Your task to perform on an android device: turn off wifi Image 0: 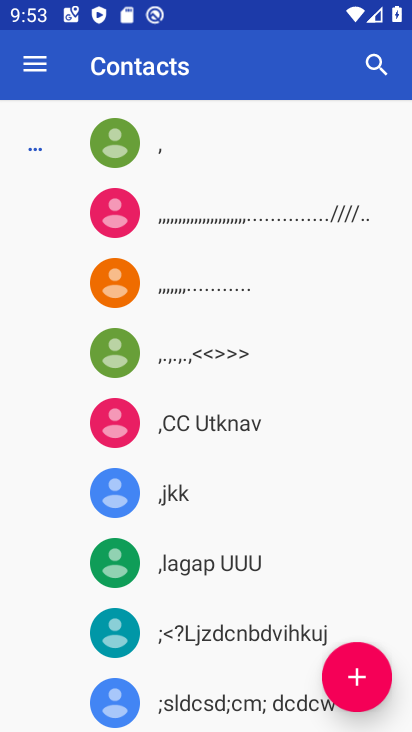
Step 0: press home button
Your task to perform on an android device: turn off wifi Image 1: 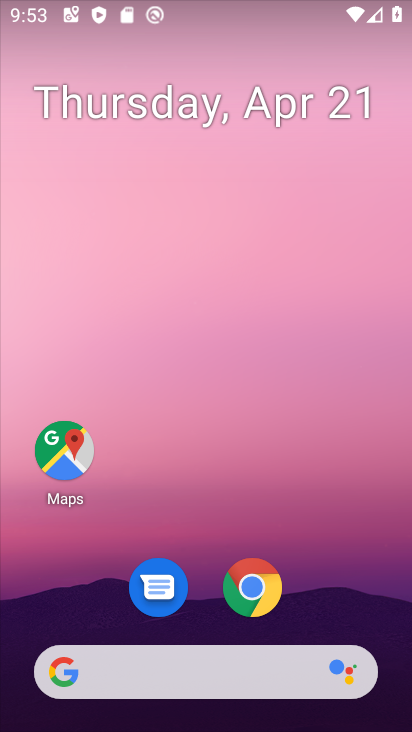
Step 1: drag from (355, 580) to (369, 61)
Your task to perform on an android device: turn off wifi Image 2: 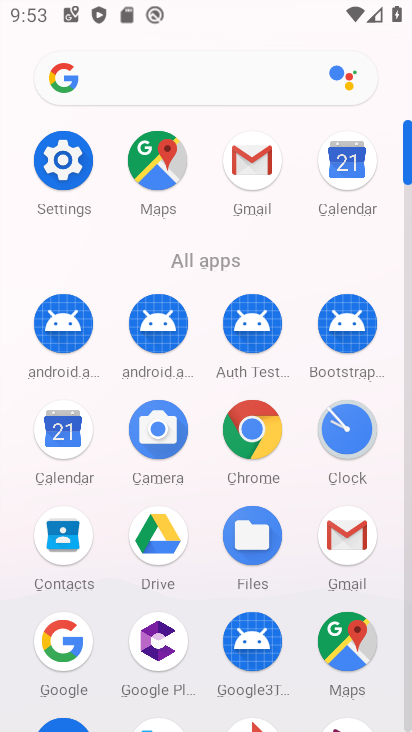
Step 2: click (75, 164)
Your task to perform on an android device: turn off wifi Image 3: 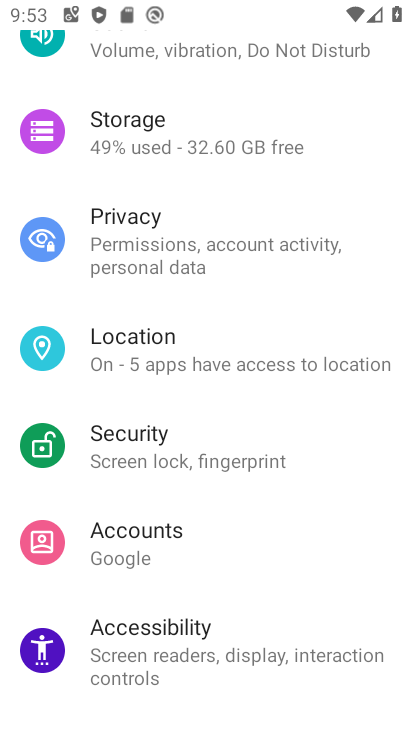
Step 3: drag from (335, 438) to (353, 552)
Your task to perform on an android device: turn off wifi Image 4: 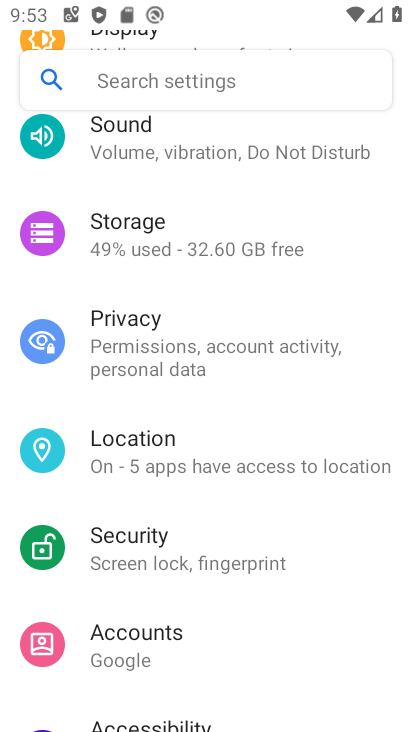
Step 4: drag from (375, 402) to (364, 535)
Your task to perform on an android device: turn off wifi Image 5: 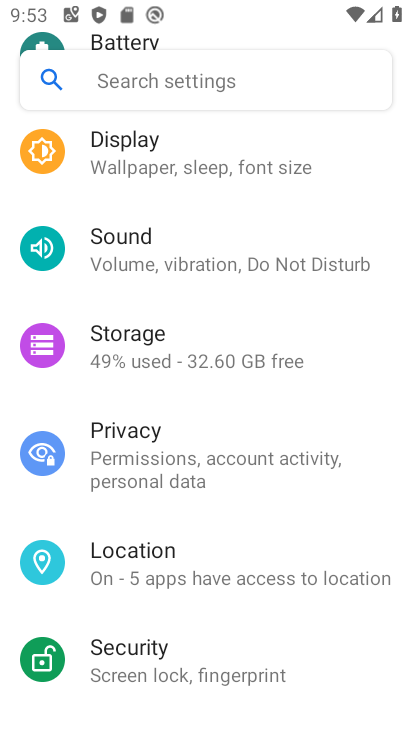
Step 5: drag from (388, 344) to (378, 482)
Your task to perform on an android device: turn off wifi Image 6: 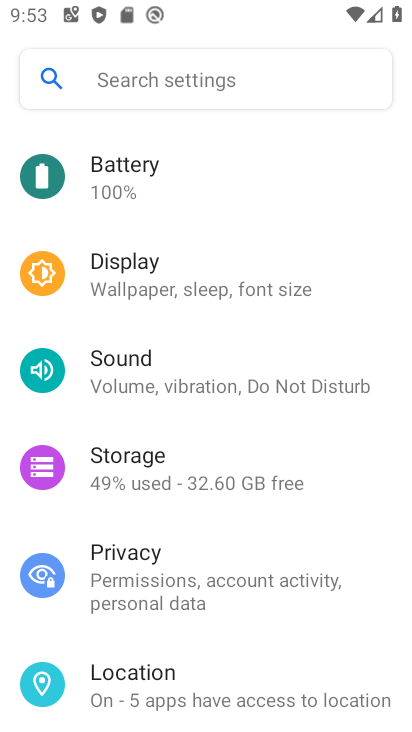
Step 6: drag from (391, 383) to (382, 467)
Your task to perform on an android device: turn off wifi Image 7: 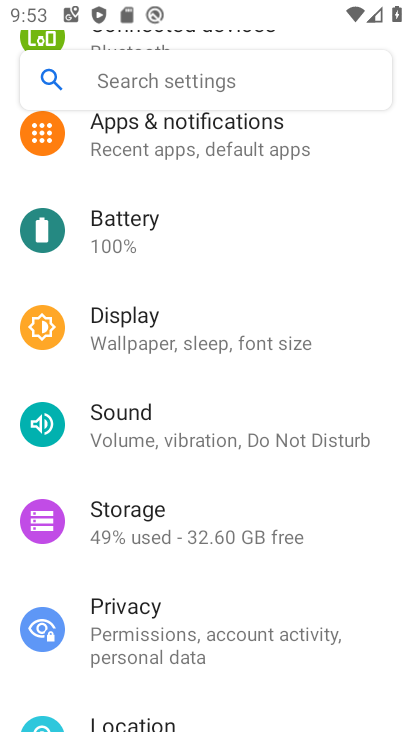
Step 7: drag from (362, 309) to (361, 492)
Your task to perform on an android device: turn off wifi Image 8: 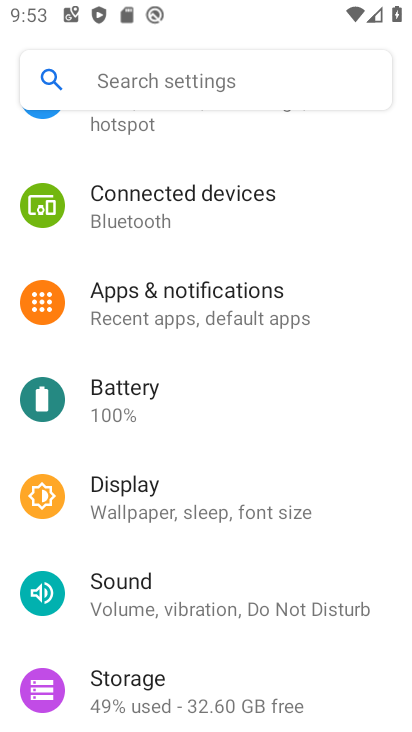
Step 8: drag from (362, 340) to (356, 466)
Your task to perform on an android device: turn off wifi Image 9: 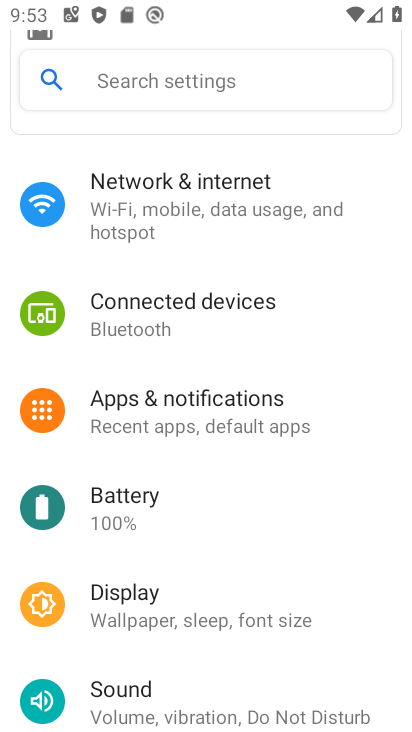
Step 9: drag from (354, 334) to (347, 455)
Your task to perform on an android device: turn off wifi Image 10: 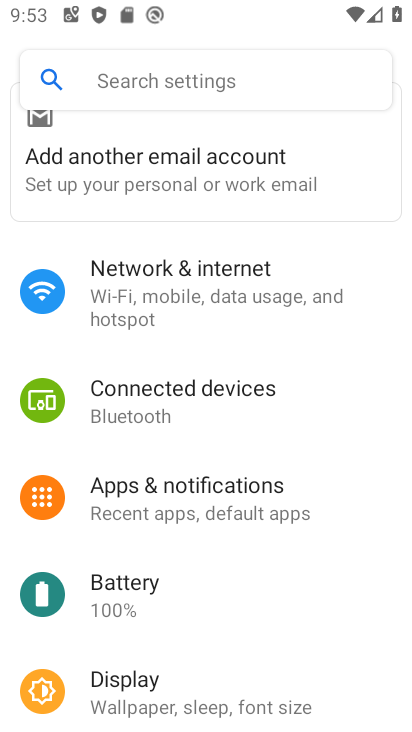
Step 10: click (277, 287)
Your task to perform on an android device: turn off wifi Image 11: 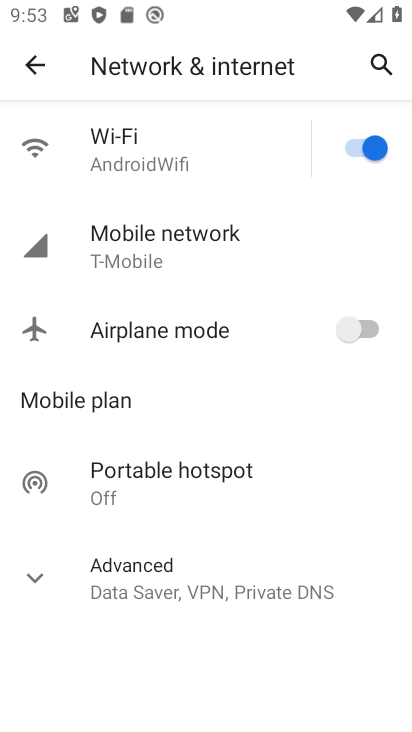
Step 11: click (351, 153)
Your task to perform on an android device: turn off wifi Image 12: 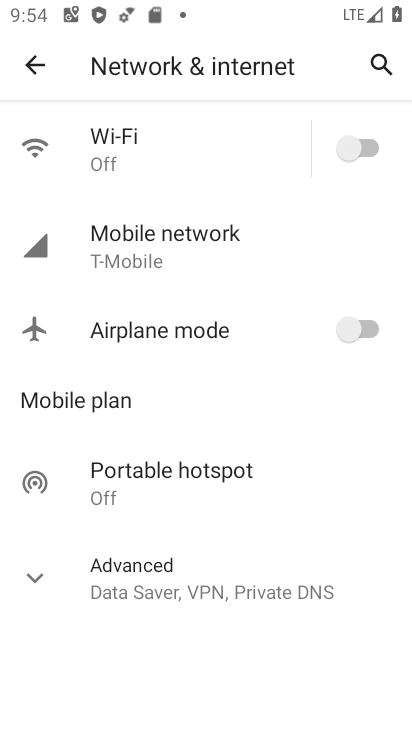
Step 12: task complete